Your task to perform on an android device: install app "Google Play Games" Image 0: 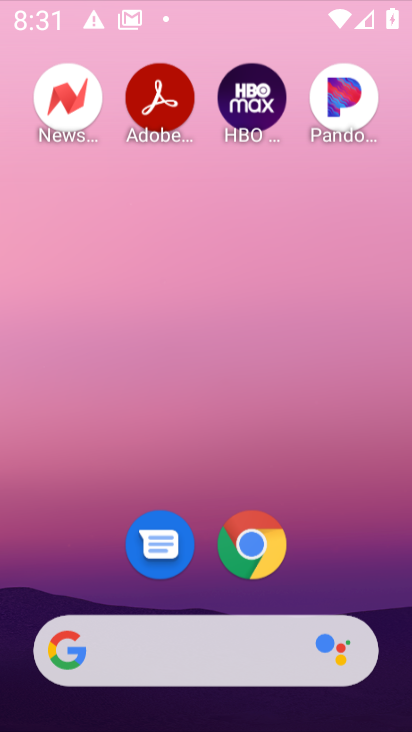
Step 0: press home button
Your task to perform on an android device: install app "Google Play Games" Image 1: 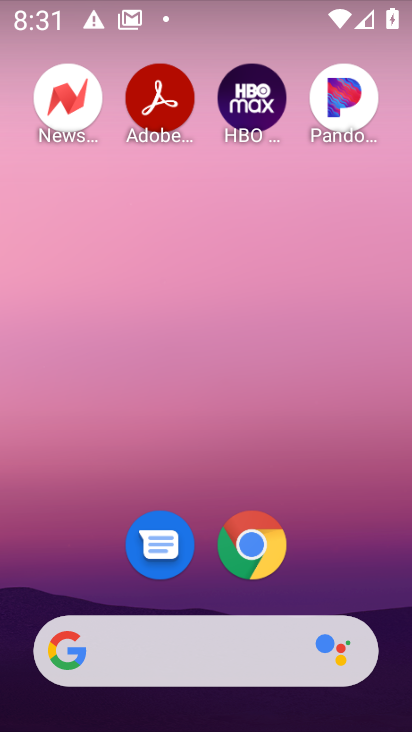
Step 1: drag from (376, 569) to (387, 93)
Your task to perform on an android device: install app "Google Play Games" Image 2: 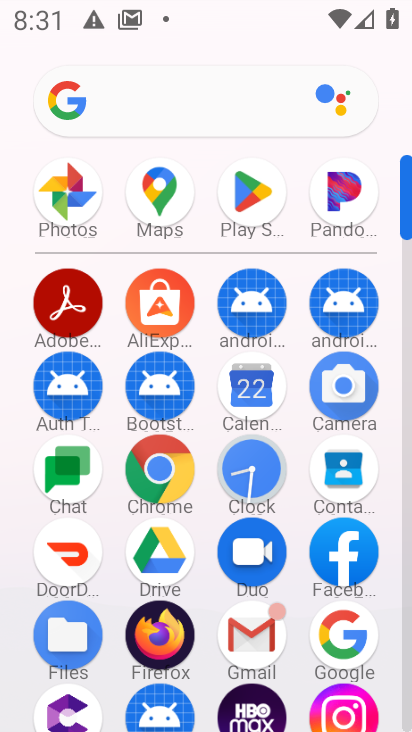
Step 2: click (250, 192)
Your task to perform on an android device: install app "Google Play Games" Image 3: 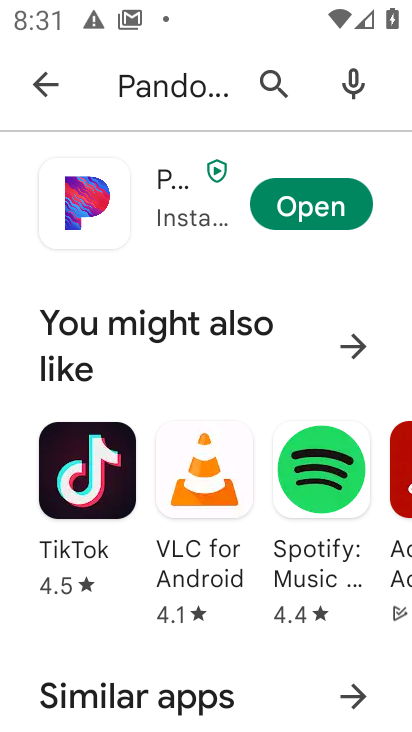
Step 3: press back button
Your task to perform on an android device: install app "Google Play Games" Image 4: 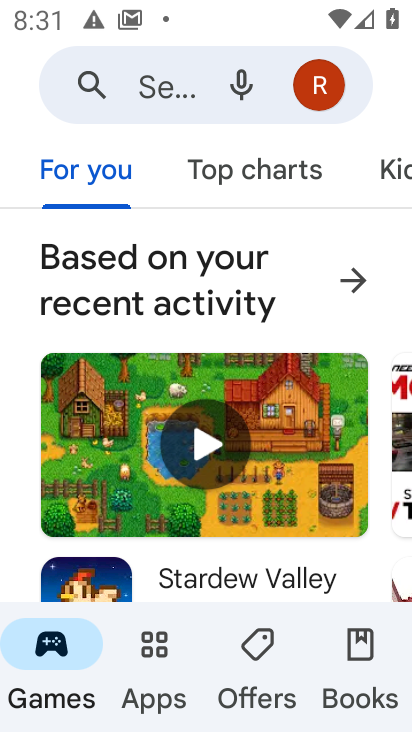
Step 4: click (169, 84)
Your task to perform on an android device: install app "Google Play Games" Image 5: 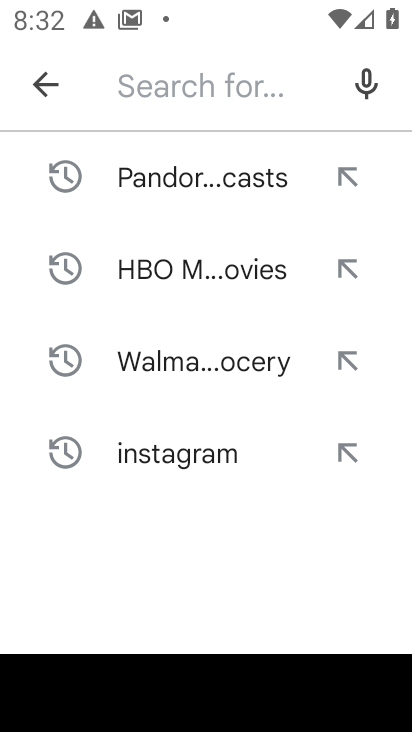
Step 5: type "Google Play Games"
Your task to perform on an android device: install app "Google Play Games" Image 6: 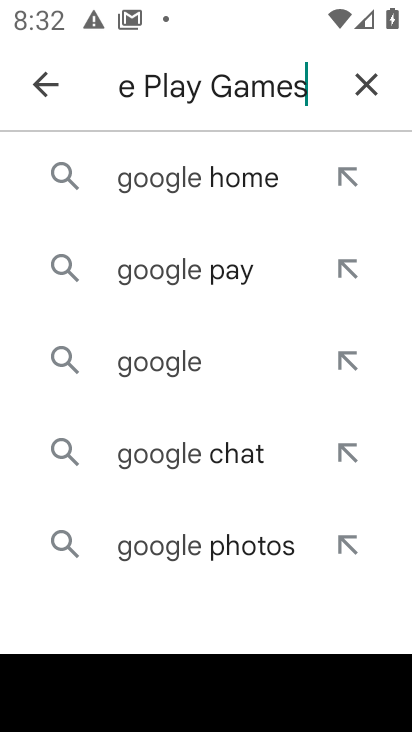
Step 6: press enter
Your task to perform on an android device: install app "Google Play Games" Image 7: 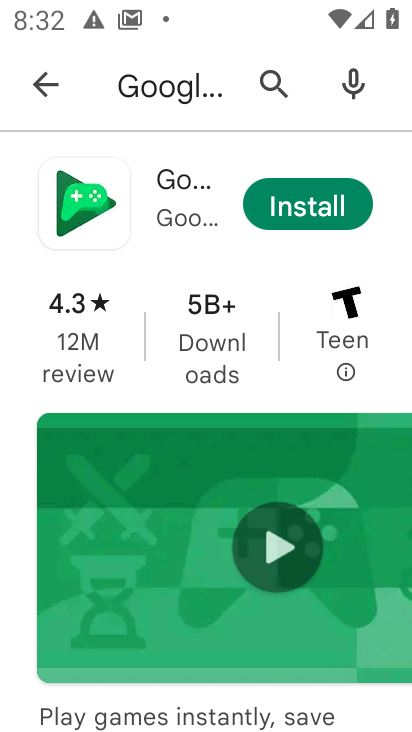
Step 7: click (305, 209)
Your task to perform on an android device: install app "Google Play Games" Image 8: 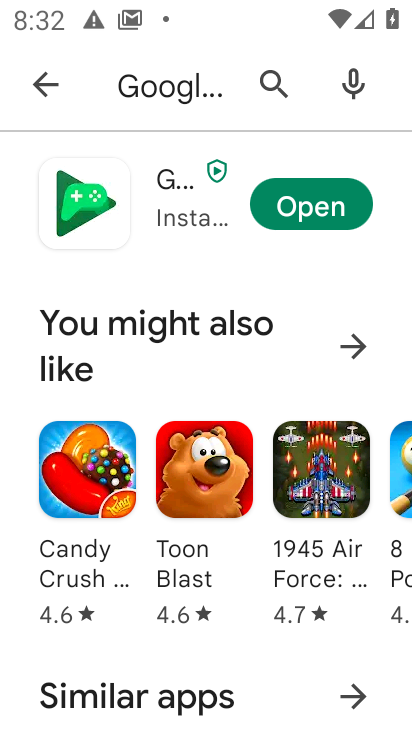
Step 8: task complete